Your task to perform on an android device: Do I have any events this weekend? Image 0: 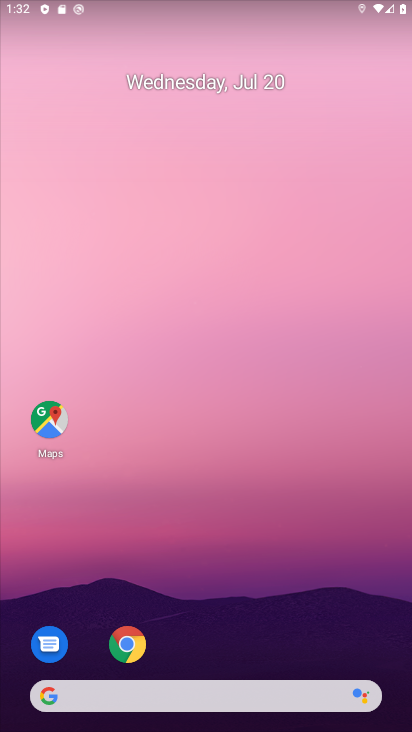
Step 0: drag from (229, 610) to (140, 194)
Your task to perform on an android device: Do I have any events this weekend? Image 1: 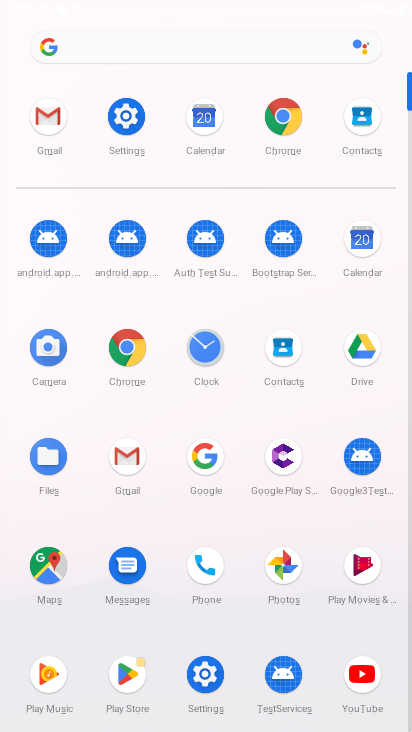
Step 1: click (374, 249)
Your task to perform on an android device: Do I have any events this weekend? Image 2: 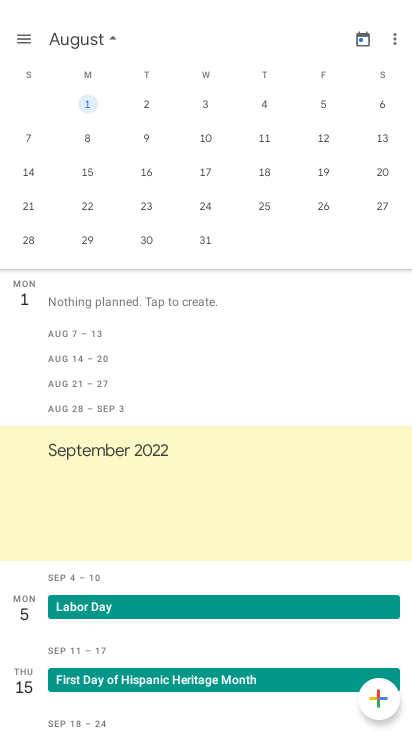
Step 2: drag from (79, 124) to (407, 89)
Your task to perform on an android device: Do I have any events this weekend? Image 3: 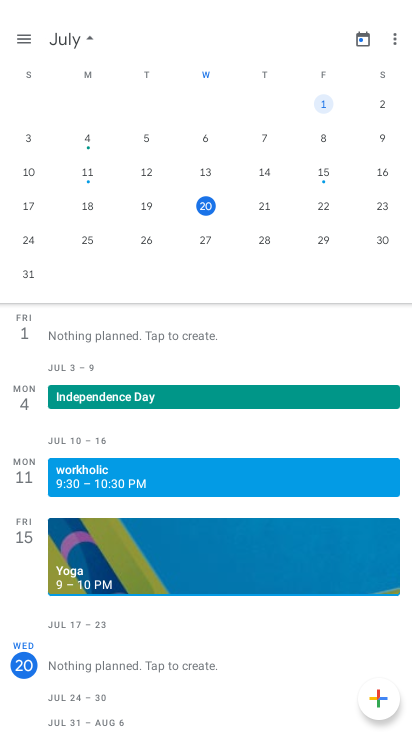
Step 3: click (374, 197)
Your task to perform on an android device: Do I have any events this weekend? Image 4: 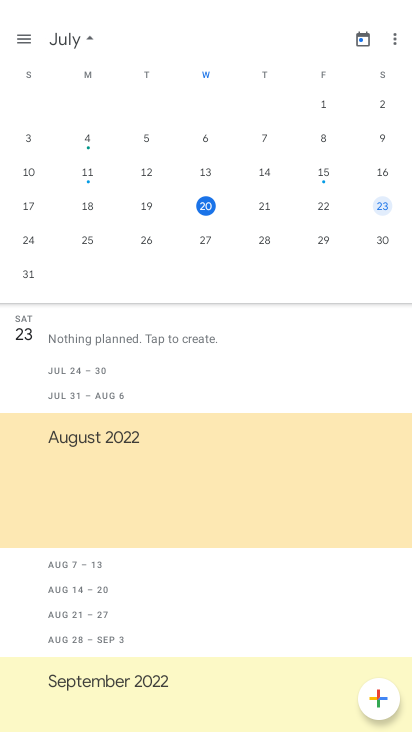
Step 4: click (21, 250)
Your task to perform on an android device: Do I have any events this weekend? Image 5: 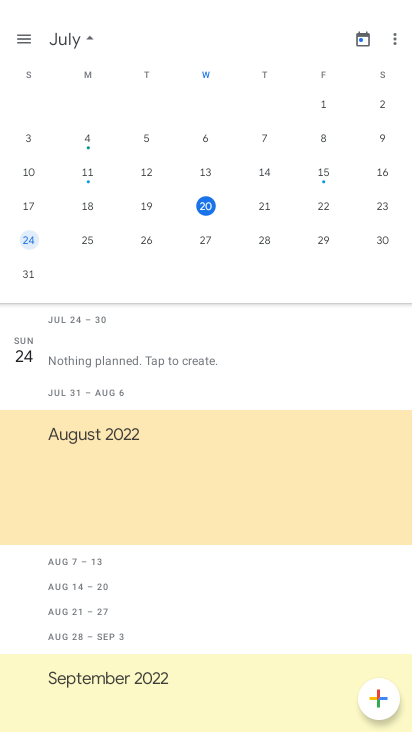
Step 5: task complete